Your task to perform on an android device: Add jbl flip 4 to the cart on newegg, then select checkout. Image 0: 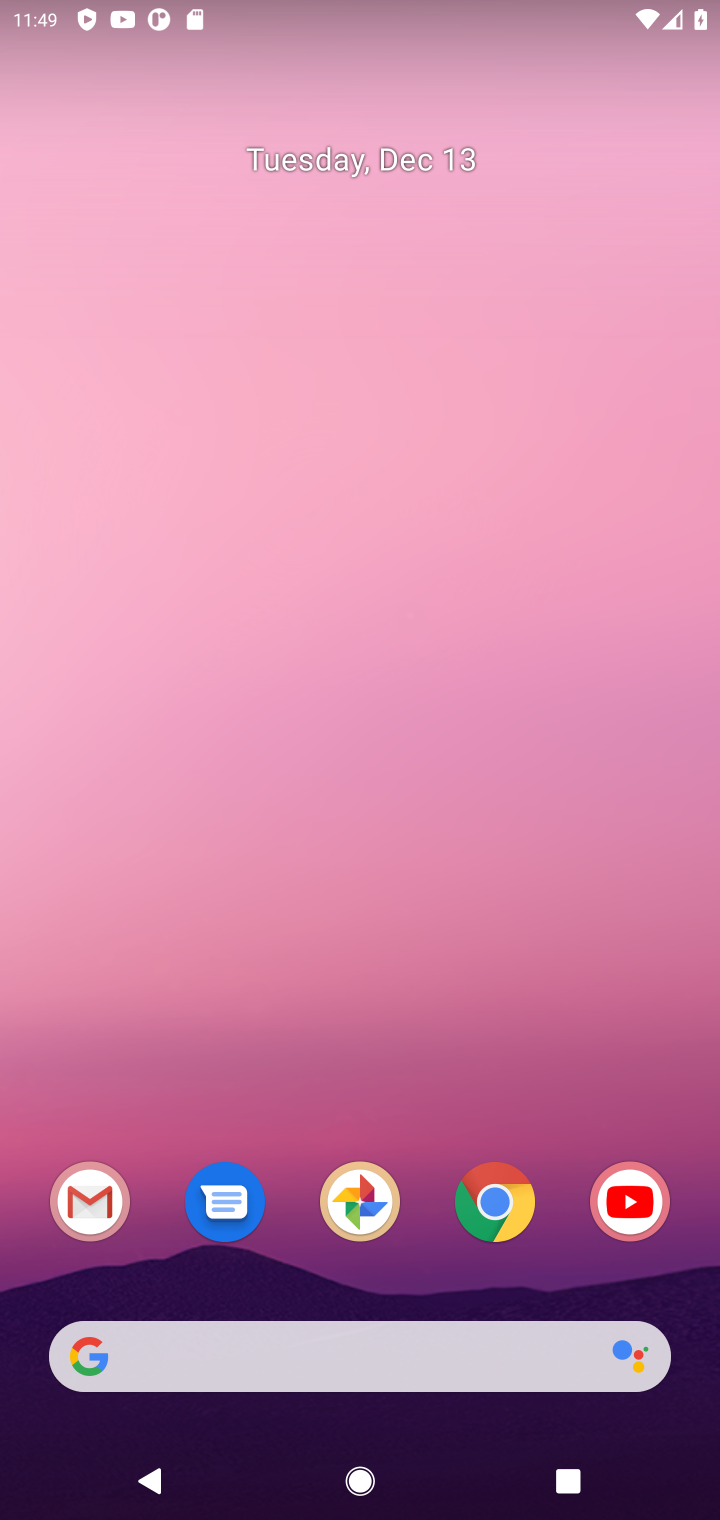
Step 0: click (490, 1200)
Your task to perform on an android device: Add jbl flip 4 to the cart on newegg, then select checkout. Image 1: 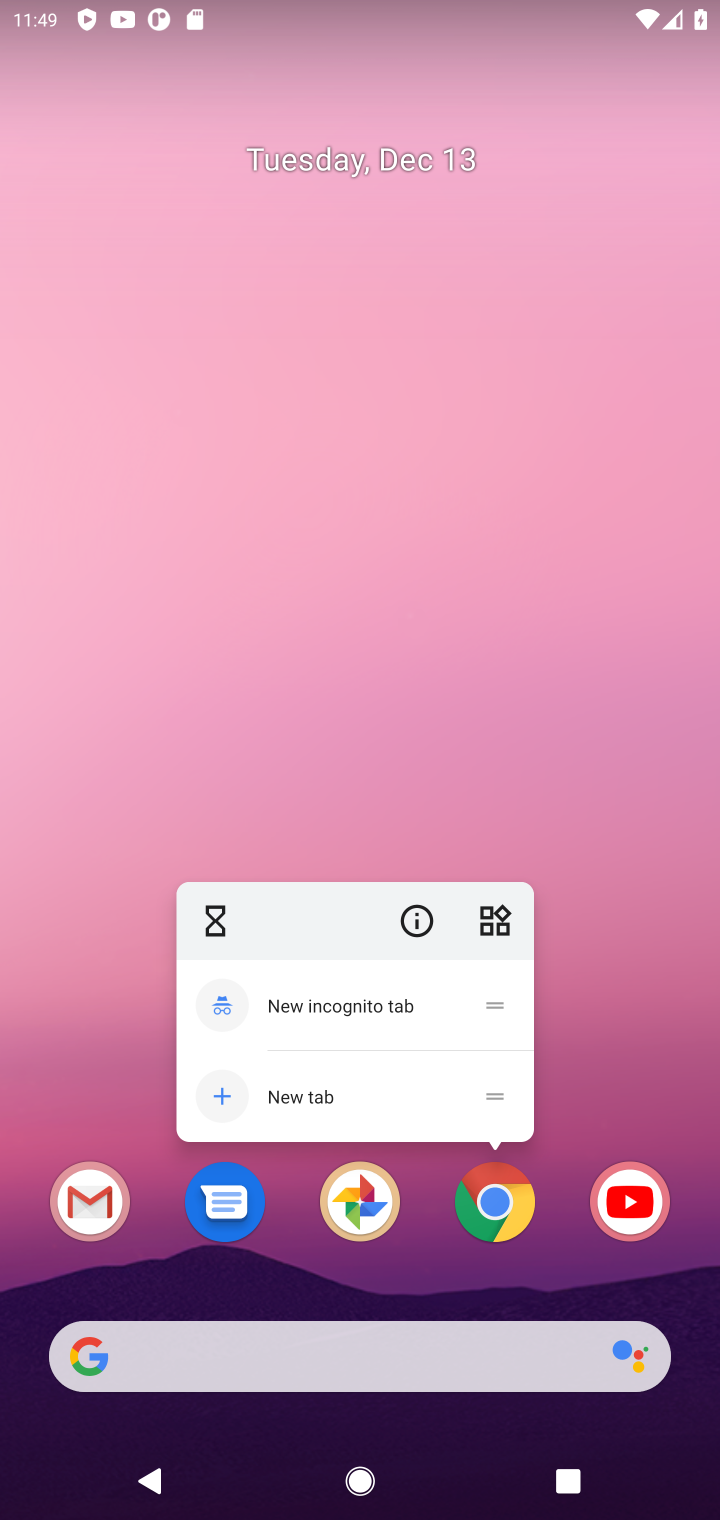
Step 1: click (500, 1203)
Your task to perform on an android device: Add jbl flip 4 to the cart on newegg, then select checkout. Image 2: 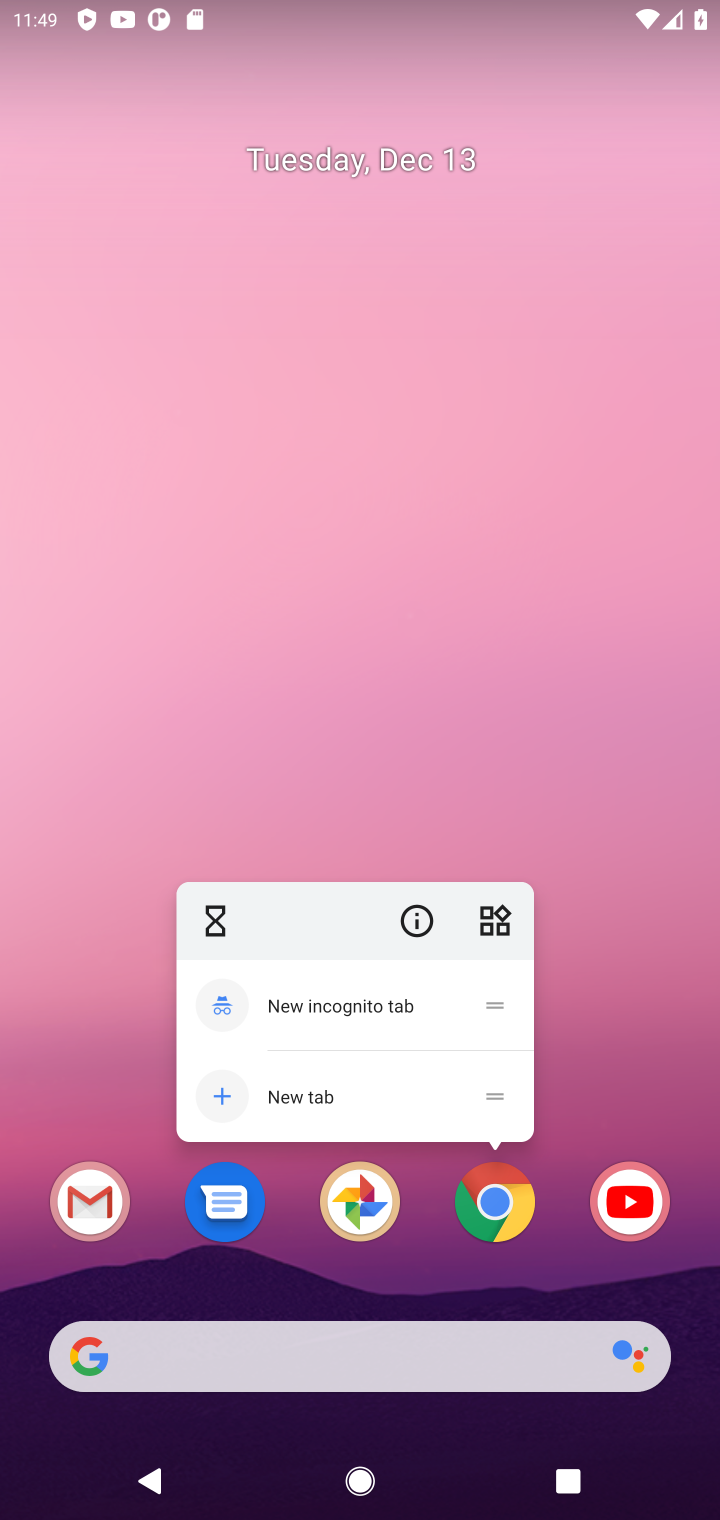
Step 2: click (500, 1203)
Your task to perform on an android device: Add jbl flip 4 to the cart on newegg, then select checkout. Image 3: 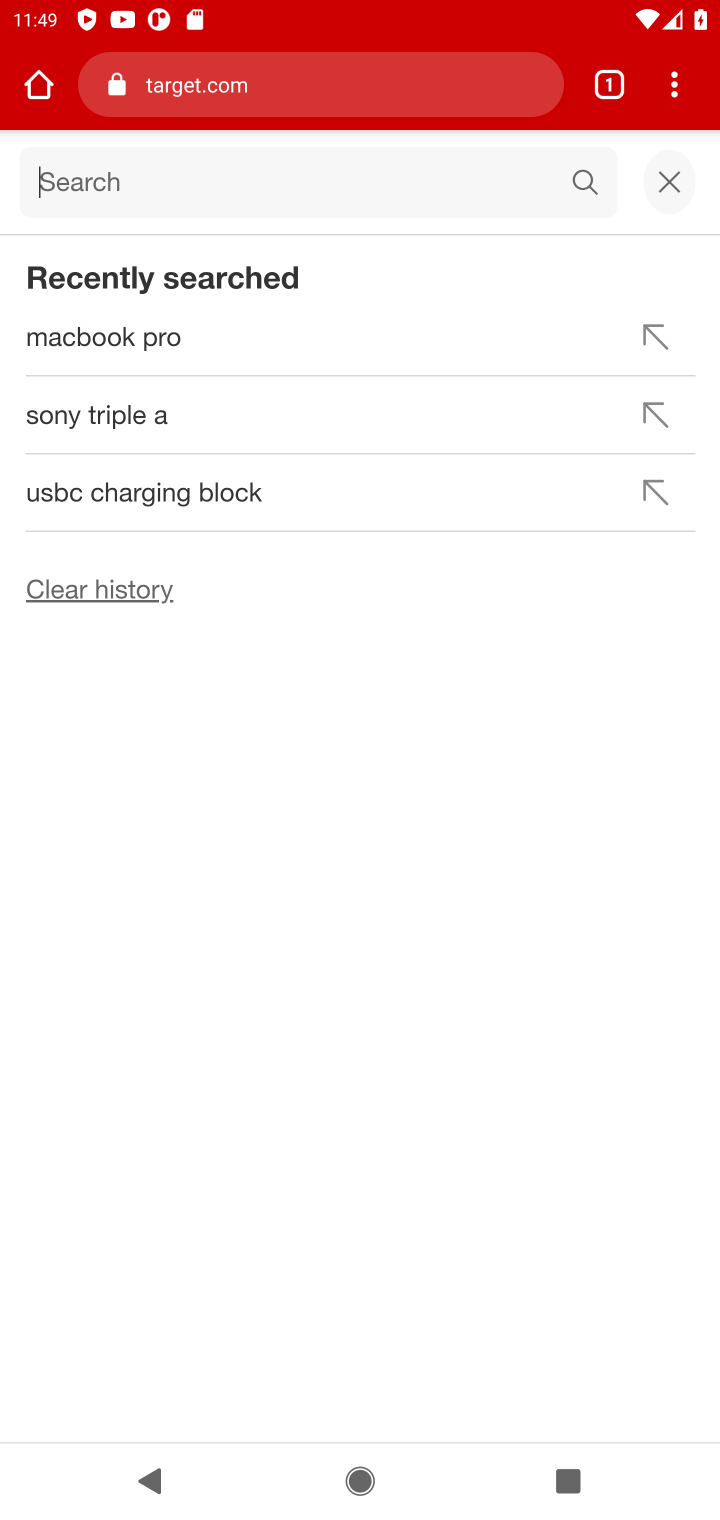
Step 3: click (326, 173)
Your task to perform on an android device: Add jbl flip 4 to the cart on newegg, then select checkout. Image 4: 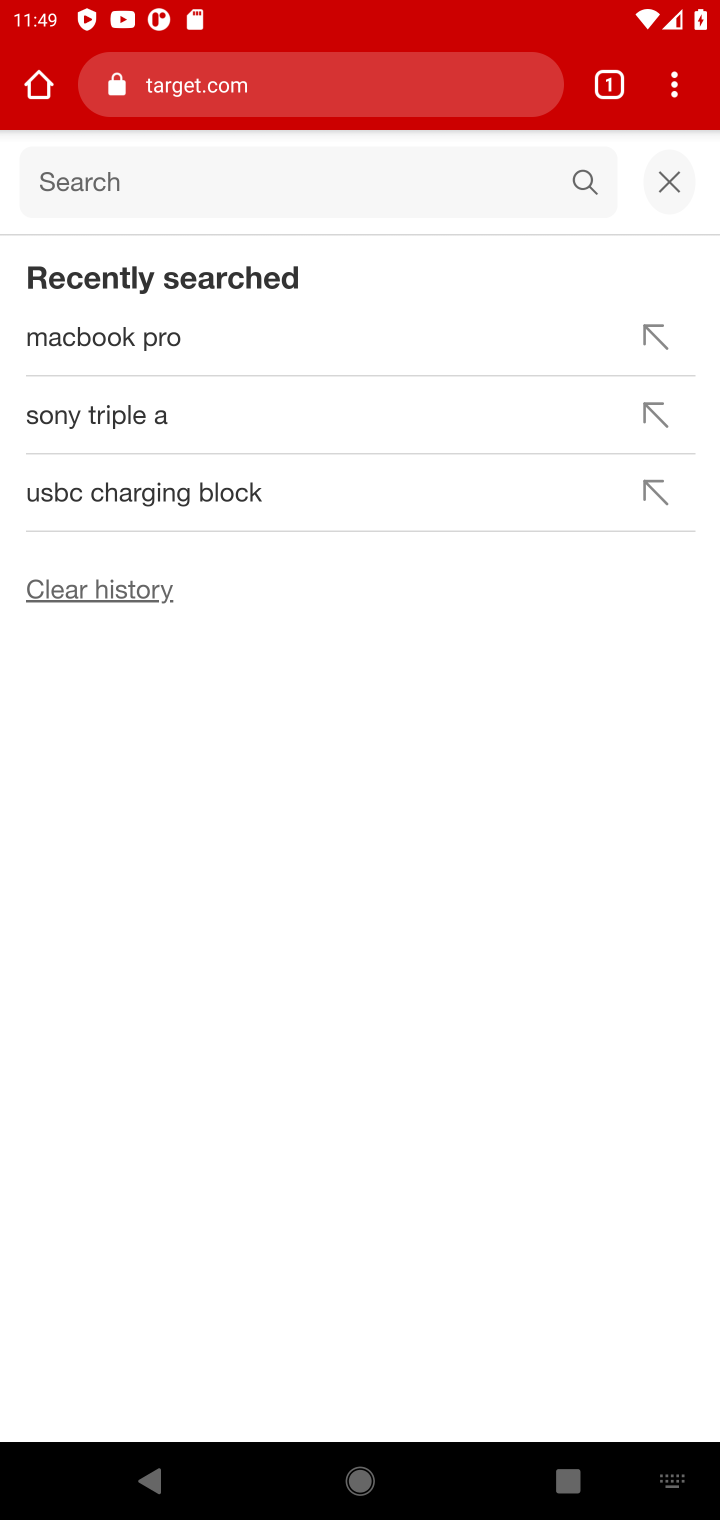
Step 4: click (276, 71)
Your task to perform on an android device: Add jbl flip 4 to the cart on newegg, then select checkout. Image 5: 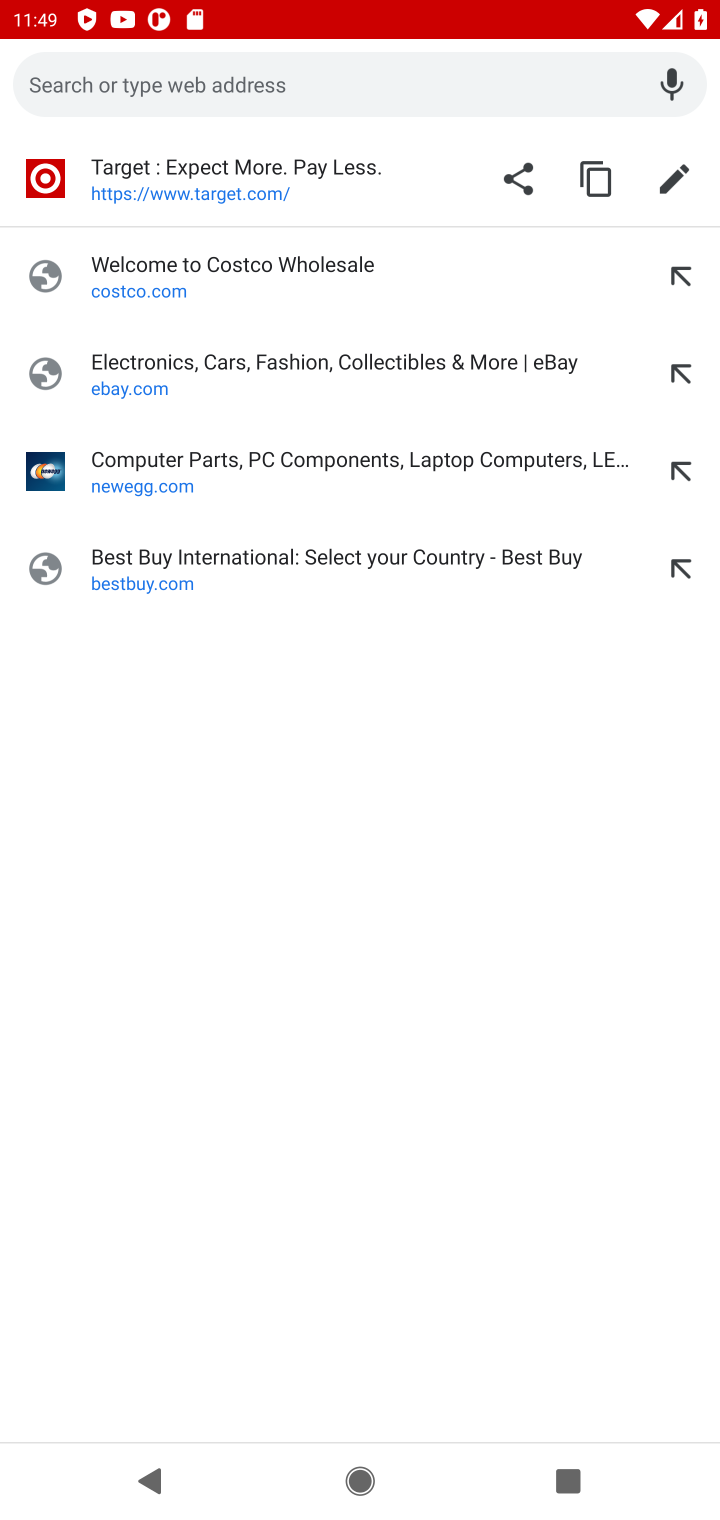
Step 5: click (250, 473)
Your task to perform on an android device: Add jbl flip 4 to the cart on newegg, then select checkout. Image 6: 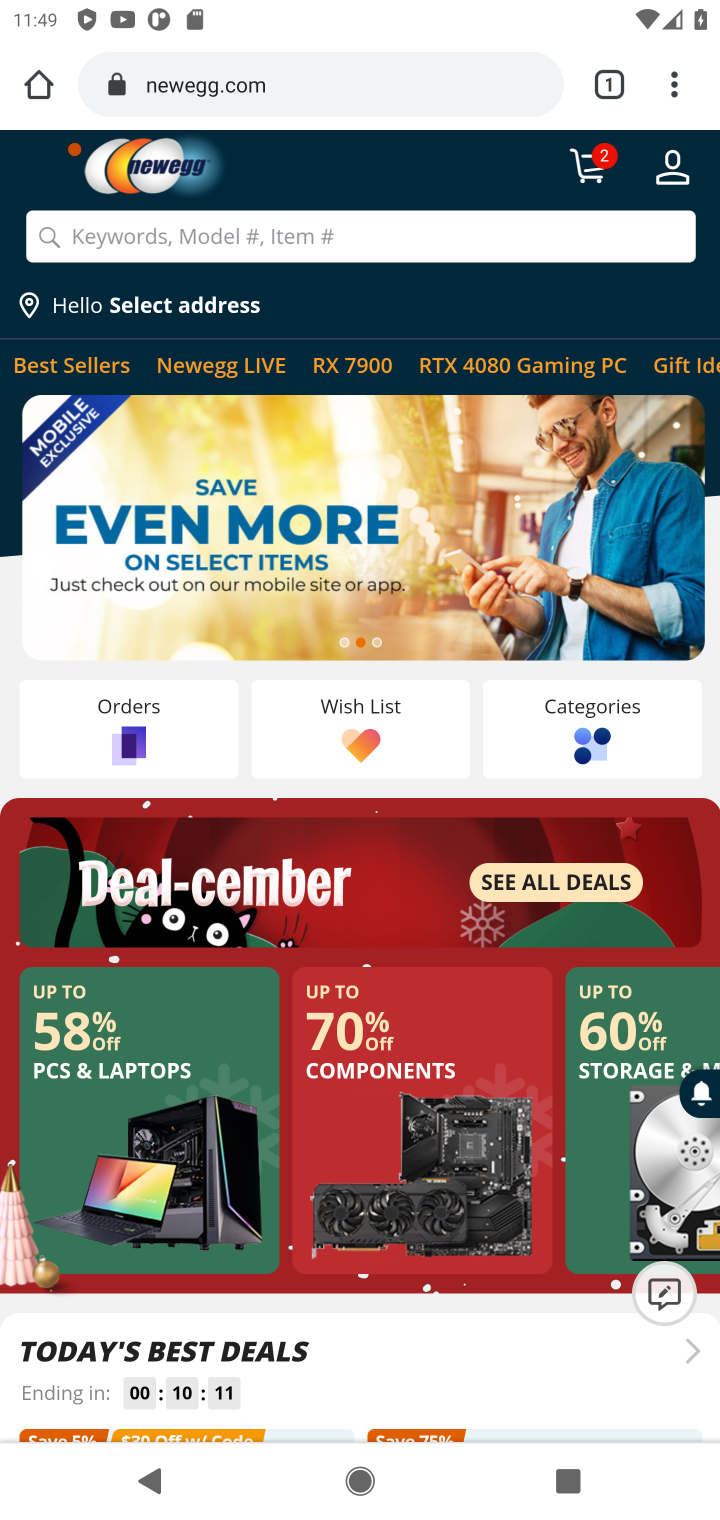
Step 6: click (271, 242)
Your task to perform on an android device: Add jbl flip 4 to the cart on newegg, then select checkout. Image 7: 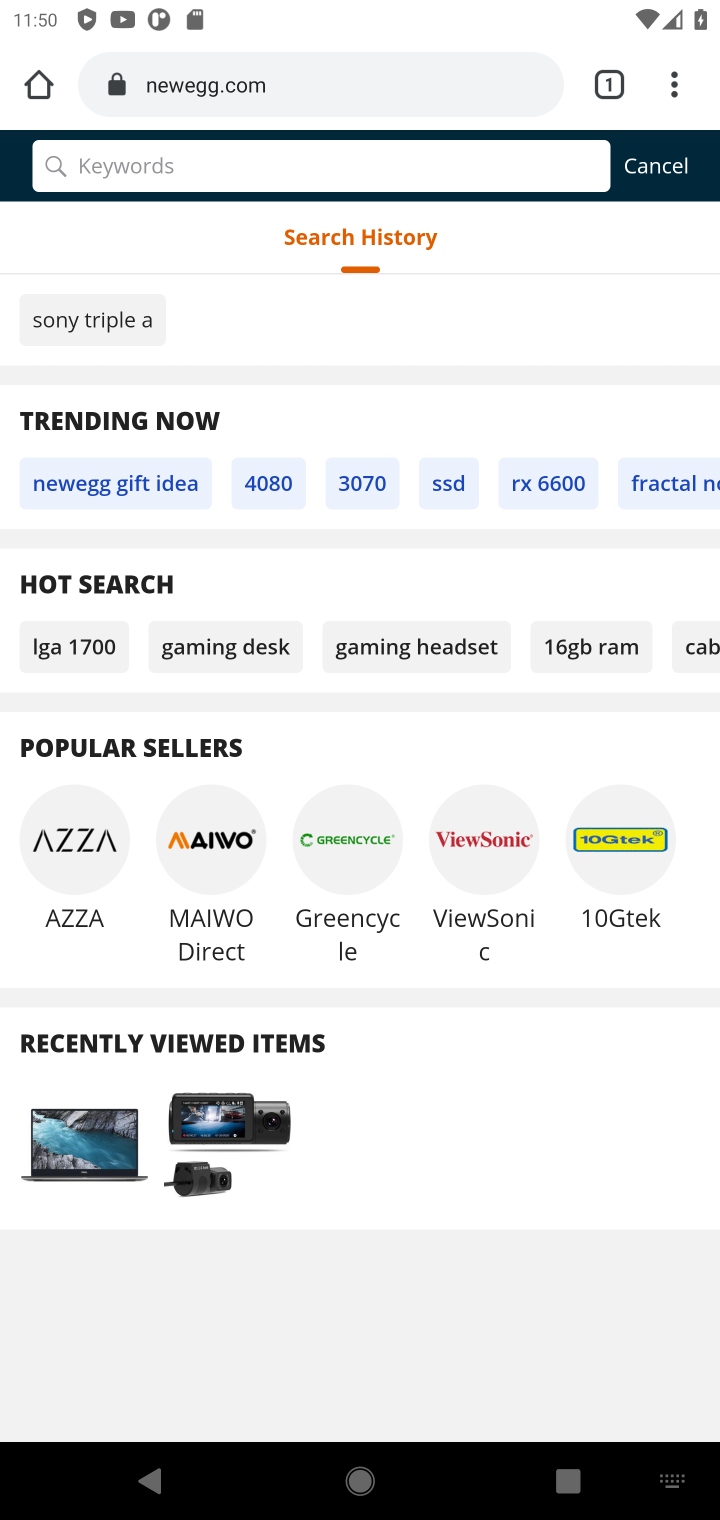
Step 7: type "jbl flip 4"
Your task to perform on an android device: Add jbl flip 4 to the cart on newegg, then select checkout. Image 8: 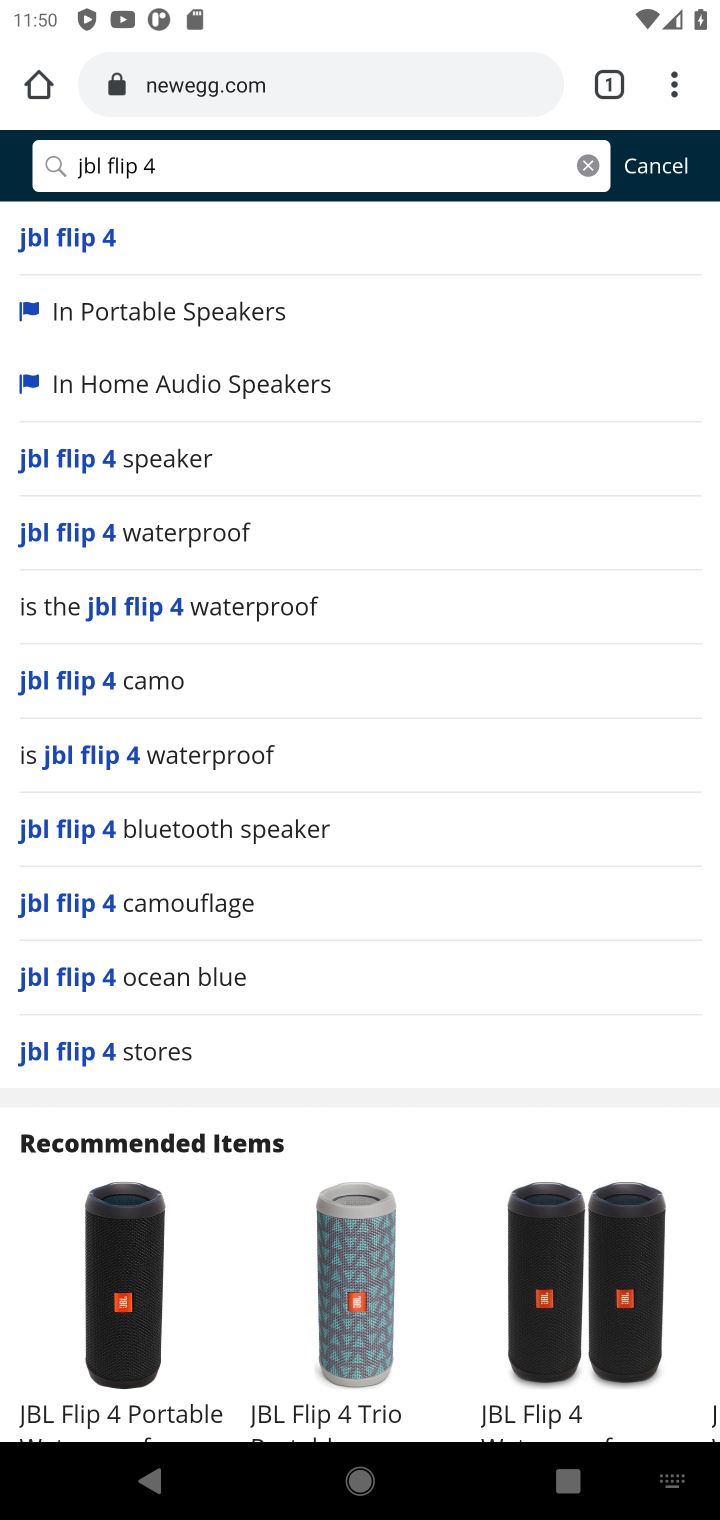
Step 8: click (90, 246)
Your task to perform on an android device: Add jbl flip 4 to the cart on newegg, then select checkout. Image 9: 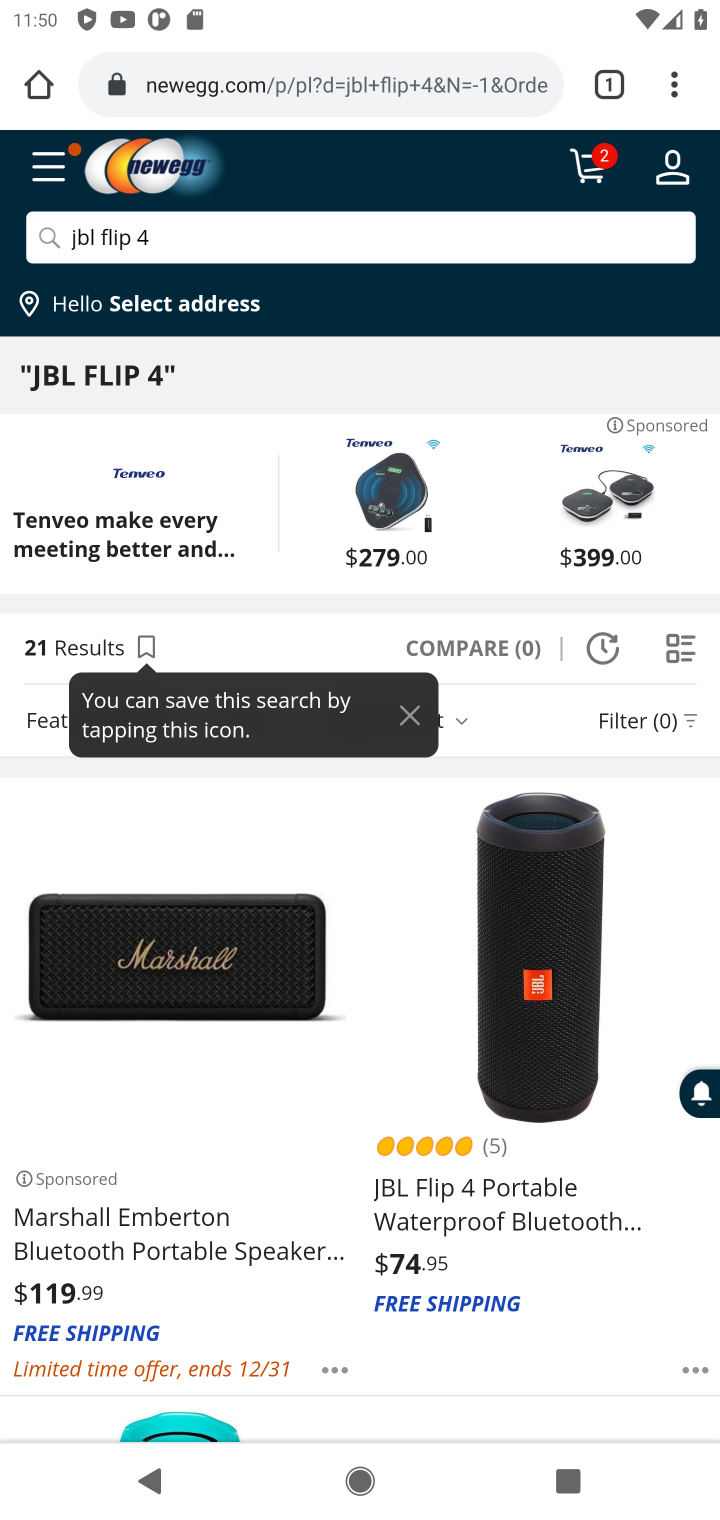
Step 9: click (206, 1037)
Your task to perform on an android device: Add jbl flip 4 to the cart on newegg, then select checkout. Image 10: 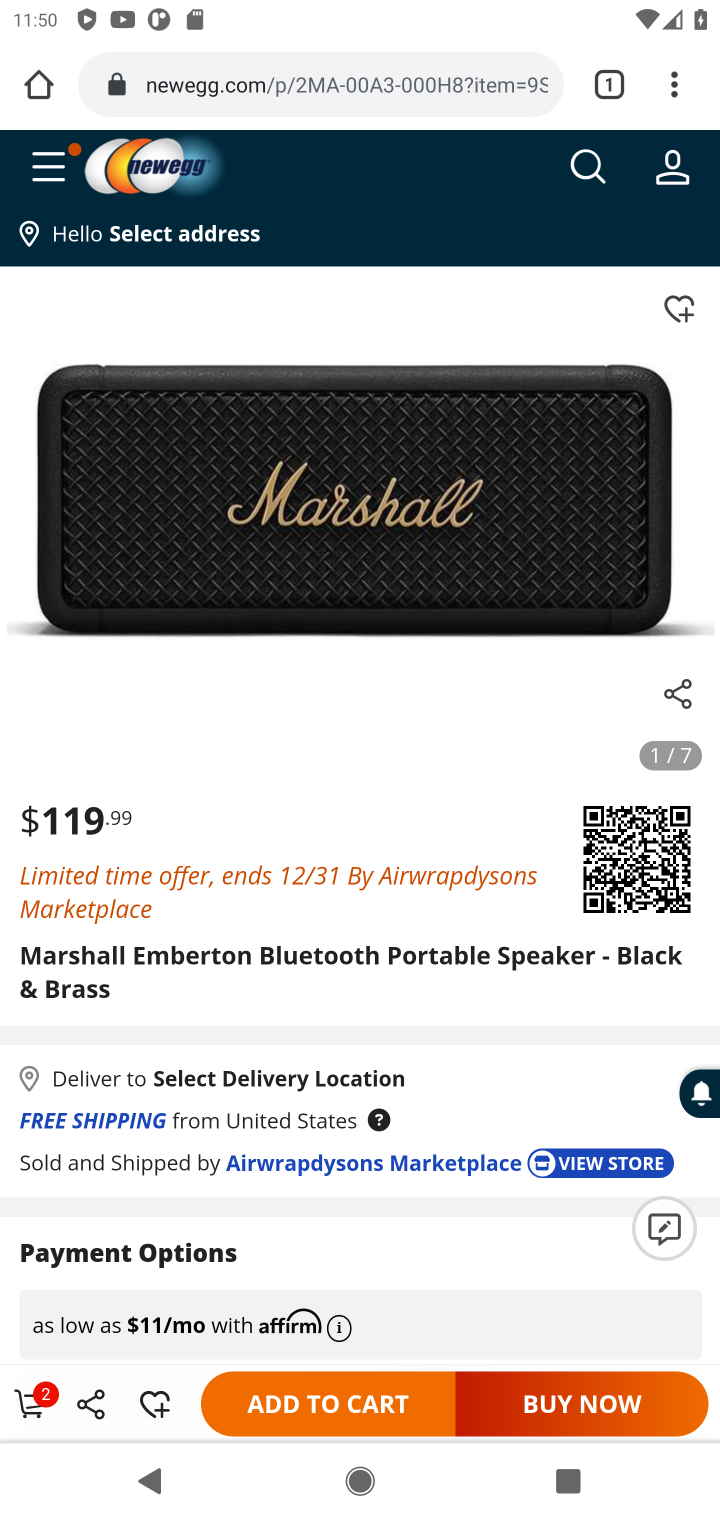
Step 10: click (313, 1403)
Your task to perform on an android device: Add jbl flip 4 to the cart on newegg, then select checkout. Image 11: 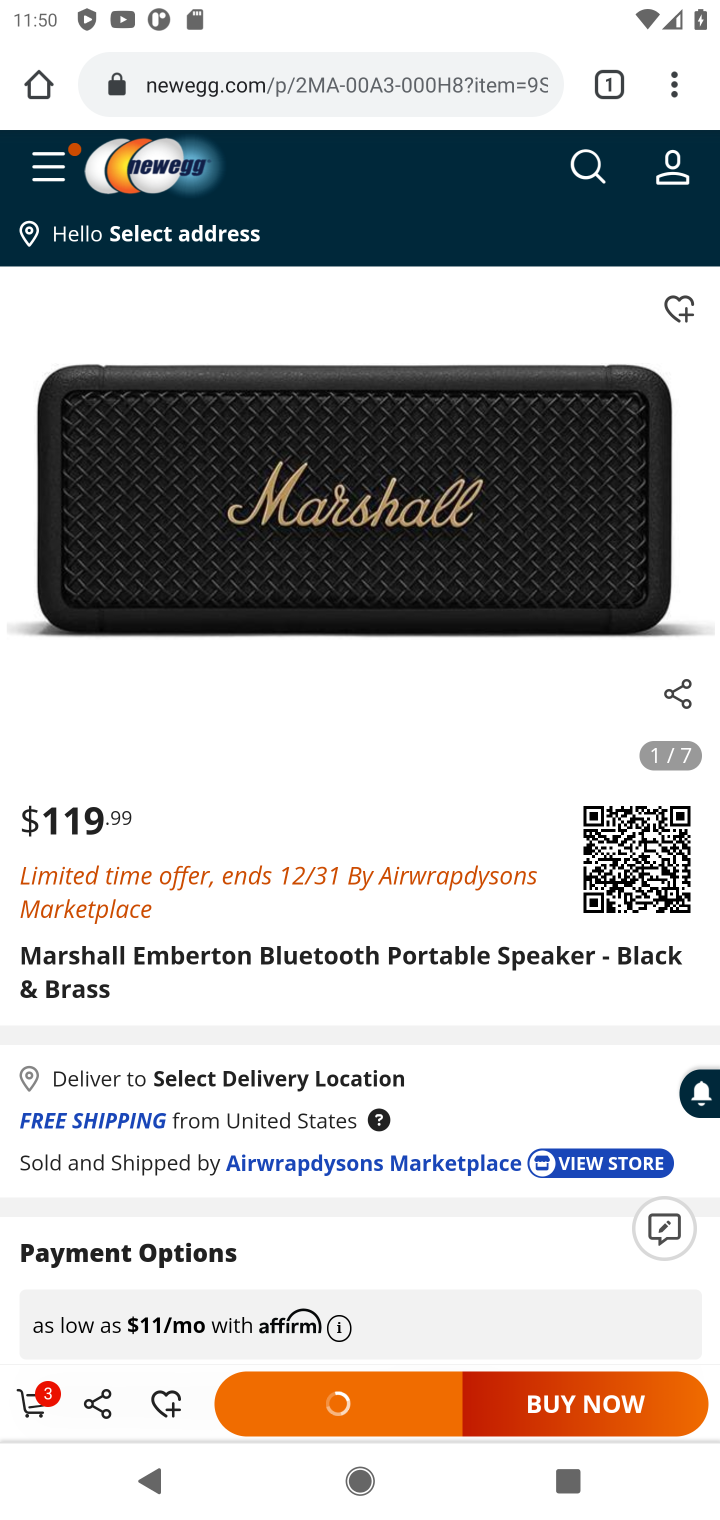
Step 11: click (29, 1413)
Your task to perform on an android device: Add jbl flip 4 to the cart on newegg, then select checkout. Image 12: 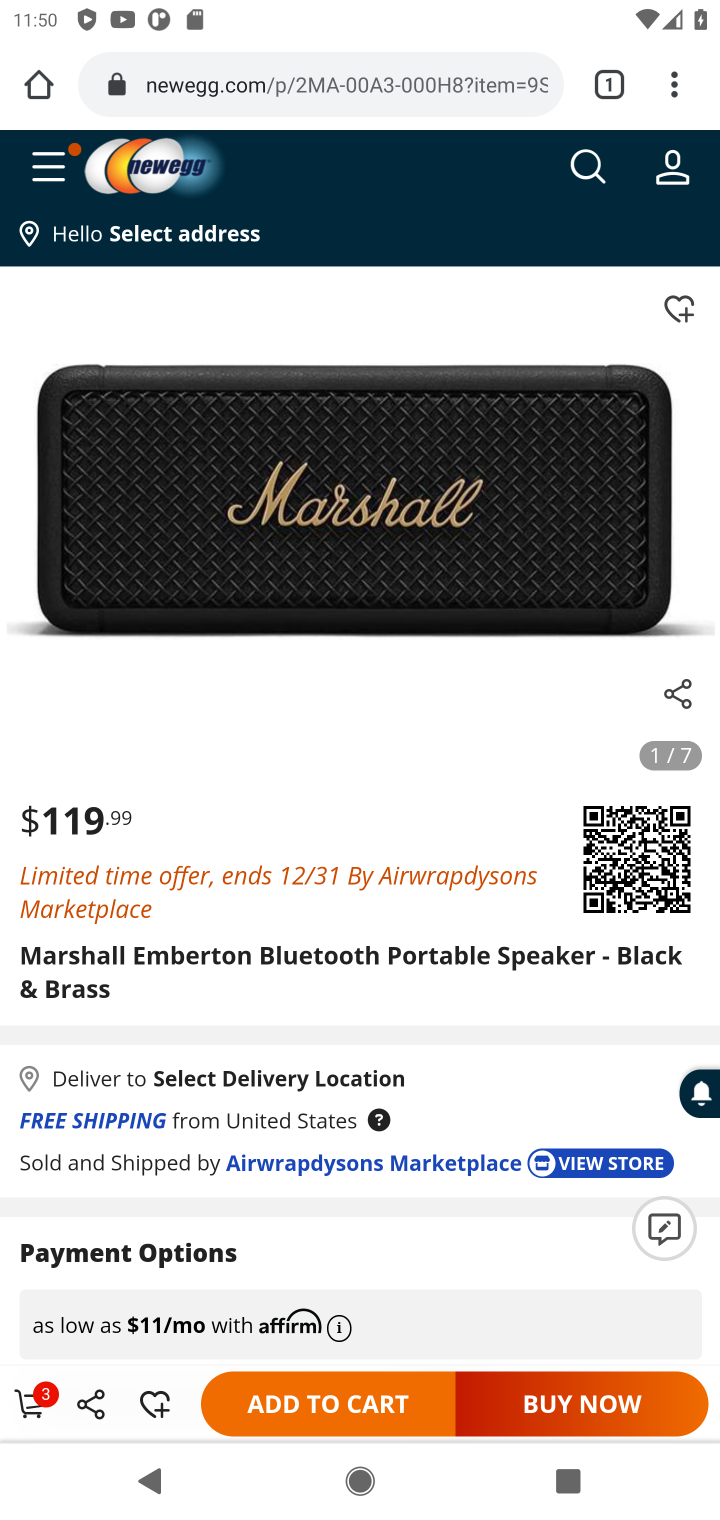
Step 12: click (29, 1402)
Your task to perform on an android device: Add jbl flip 4 to the cart on newegg, then select checkout. Image 13: 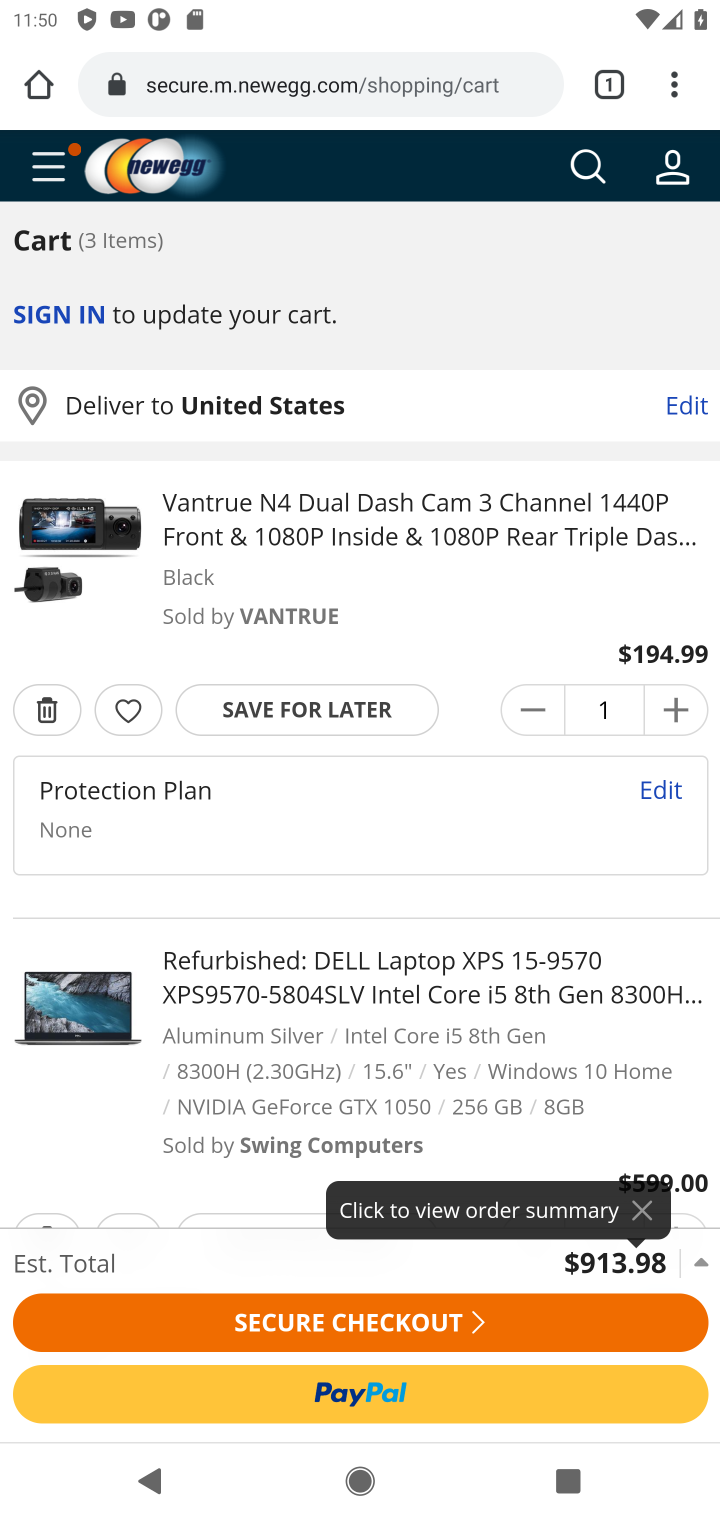
Step 13: click (351, 1320)
Your task to perform on an android device: Add jbl flip 4 to the cart on newegg, then select checkout. Image 14: 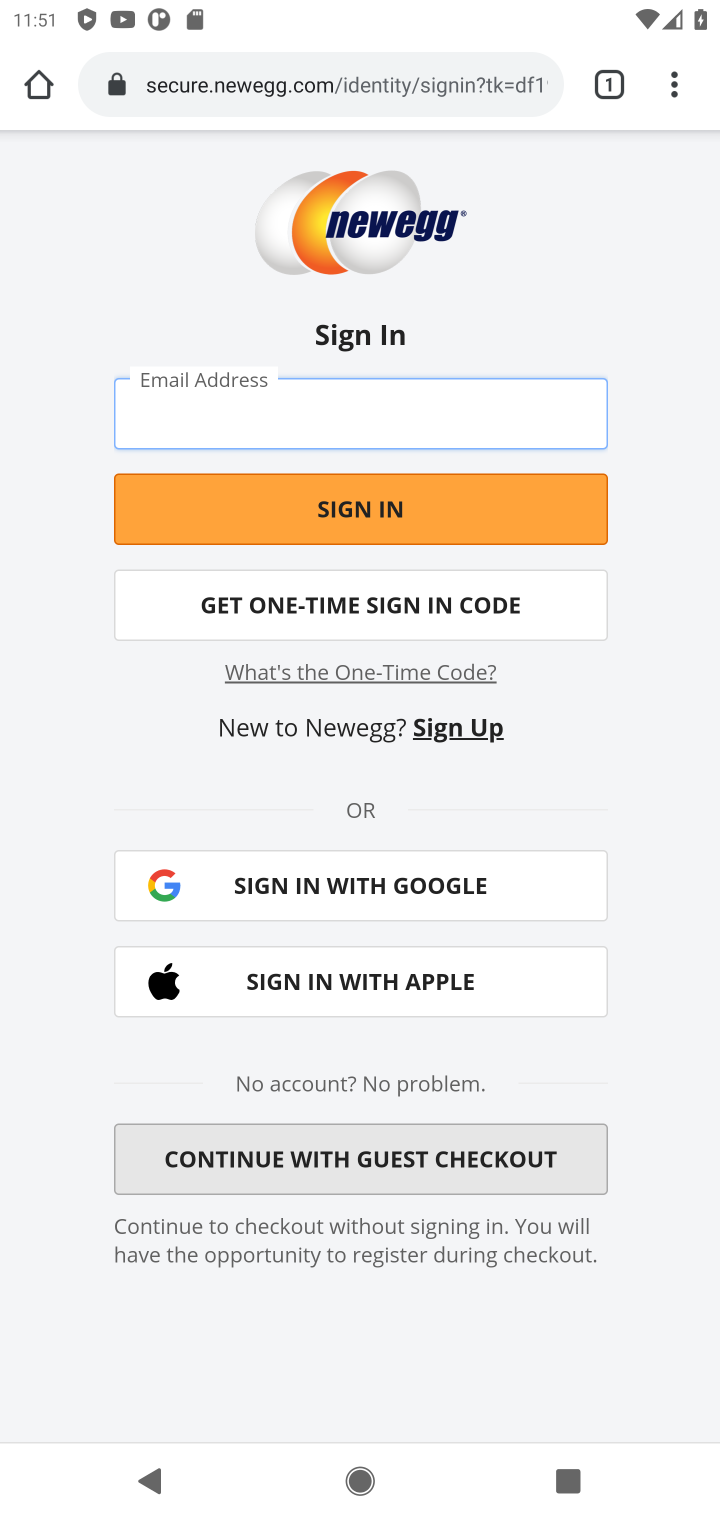
Step 14: task complete